Your task to perform on an android device: change the clock display to digital Image 0: 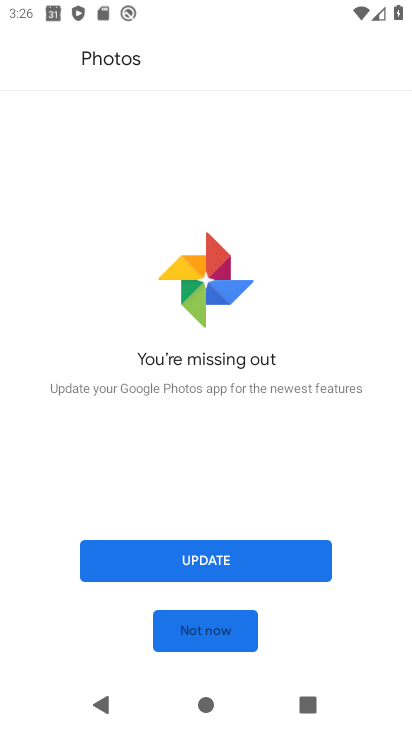
Step 0: press home button
Your task to perform on an android device: change the clock display to digital Image 1: 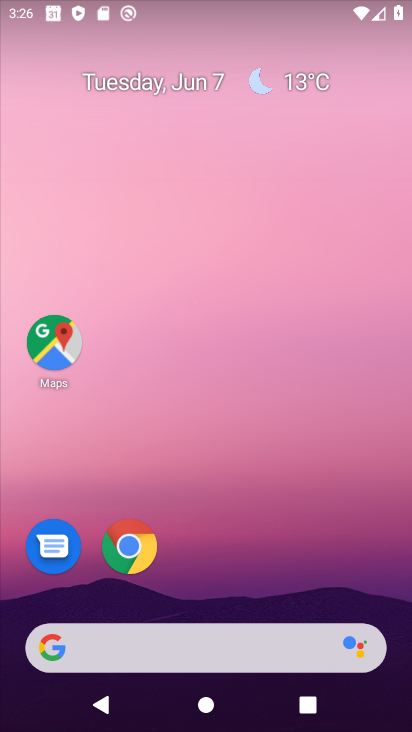
Step 1: drag from (231, 607) to (97, 34)
Your task to perform on an android device: change the clock display to digital Image 2: 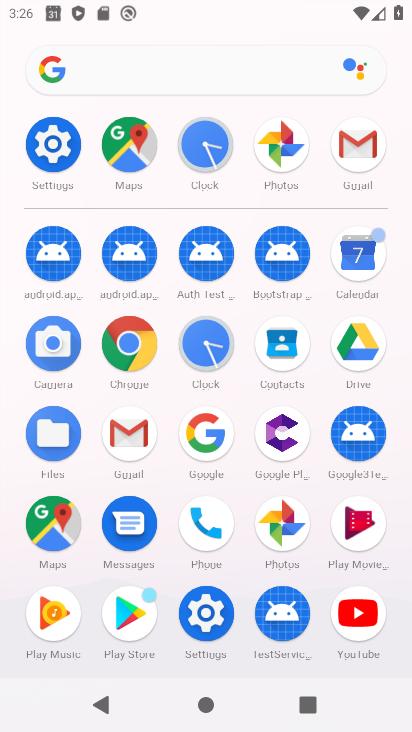
Step 2: click (202, 158)
Your task to perform on an android device: change the clock display to digital Image 3: 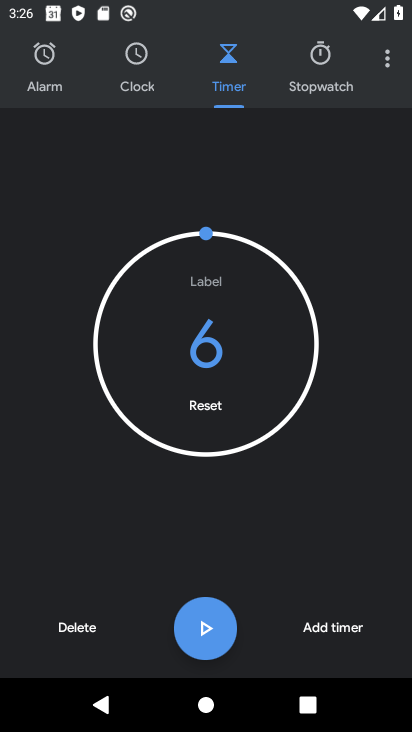
Step 3: click (389, 70)
Your task to perform on an android device: change the clock display to digital Image 4: 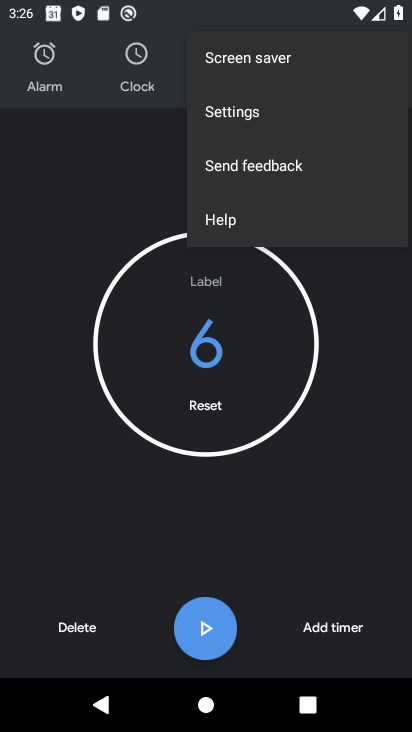
Step 4: click (248, 123)
Your task to perform on an android device: change the clock display to digital Image 5: 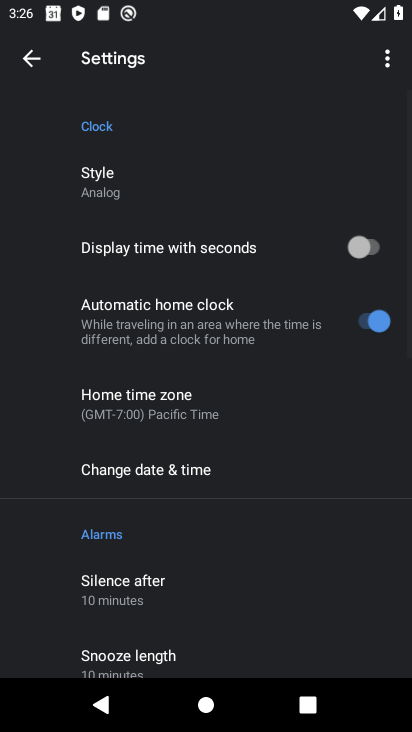
Step 5: click (104, 180)
Your task to perform on an android device: change the clock display to digital Image 6: 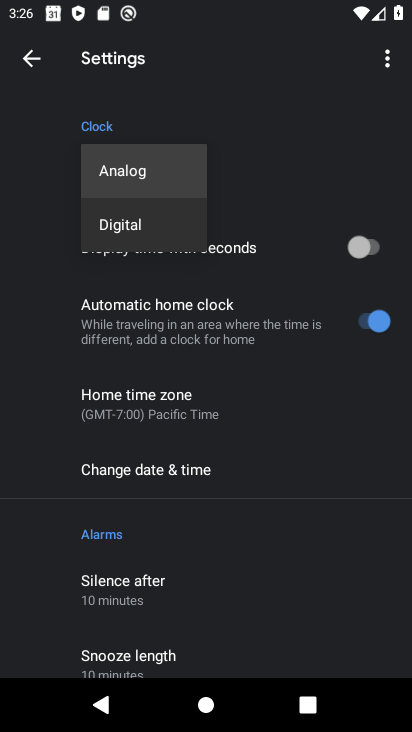
Step 6: click (122, 213)
Your task to perform on an android device: change the clock display to digital Image 7: 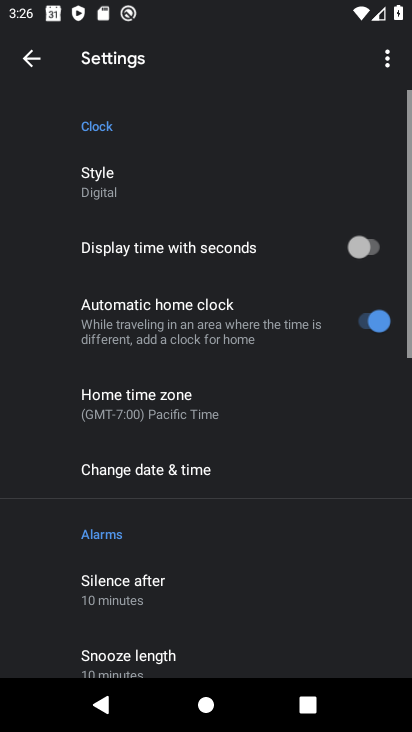
Step 7: task complete